Your task to perform on an android device: What's the news about the US? Image 0: 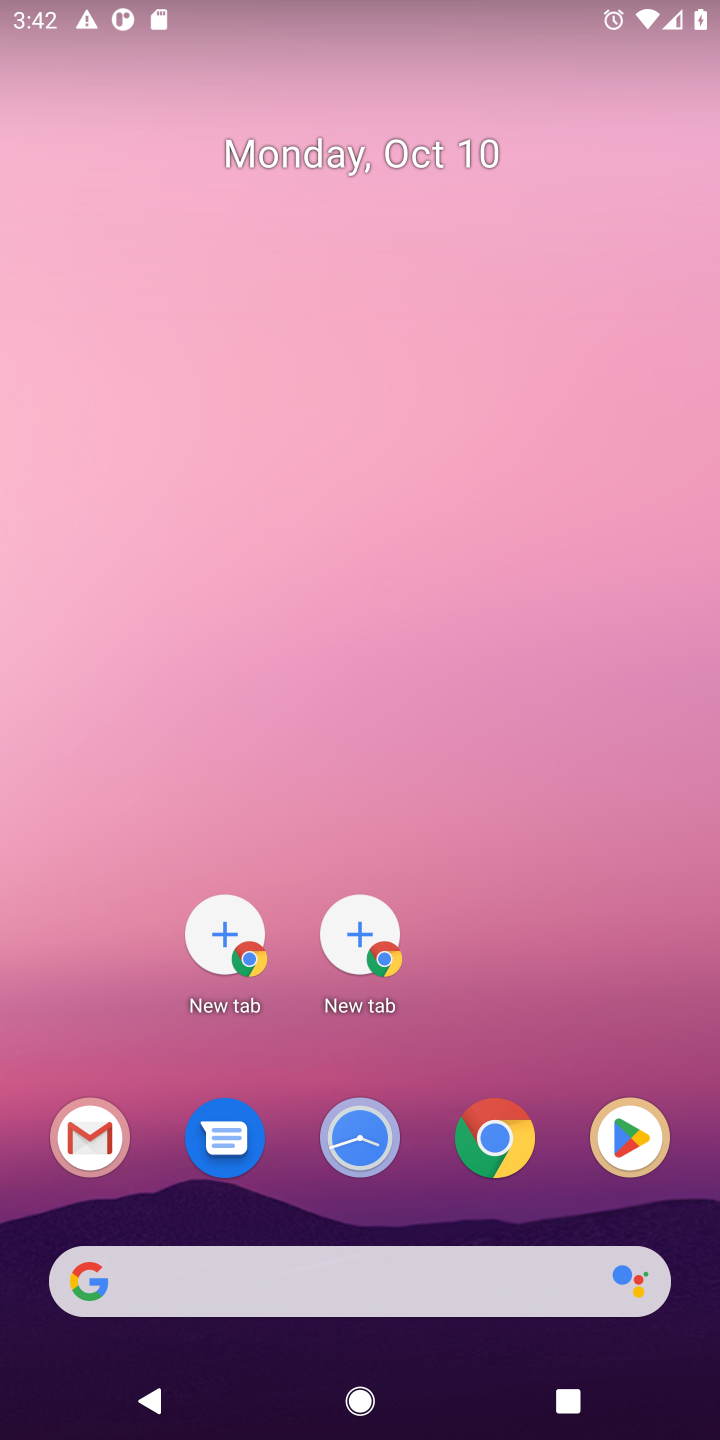
Step 0: click (516, 1133)
Your task to perform on an android device: What's the news about the US? Image 1: 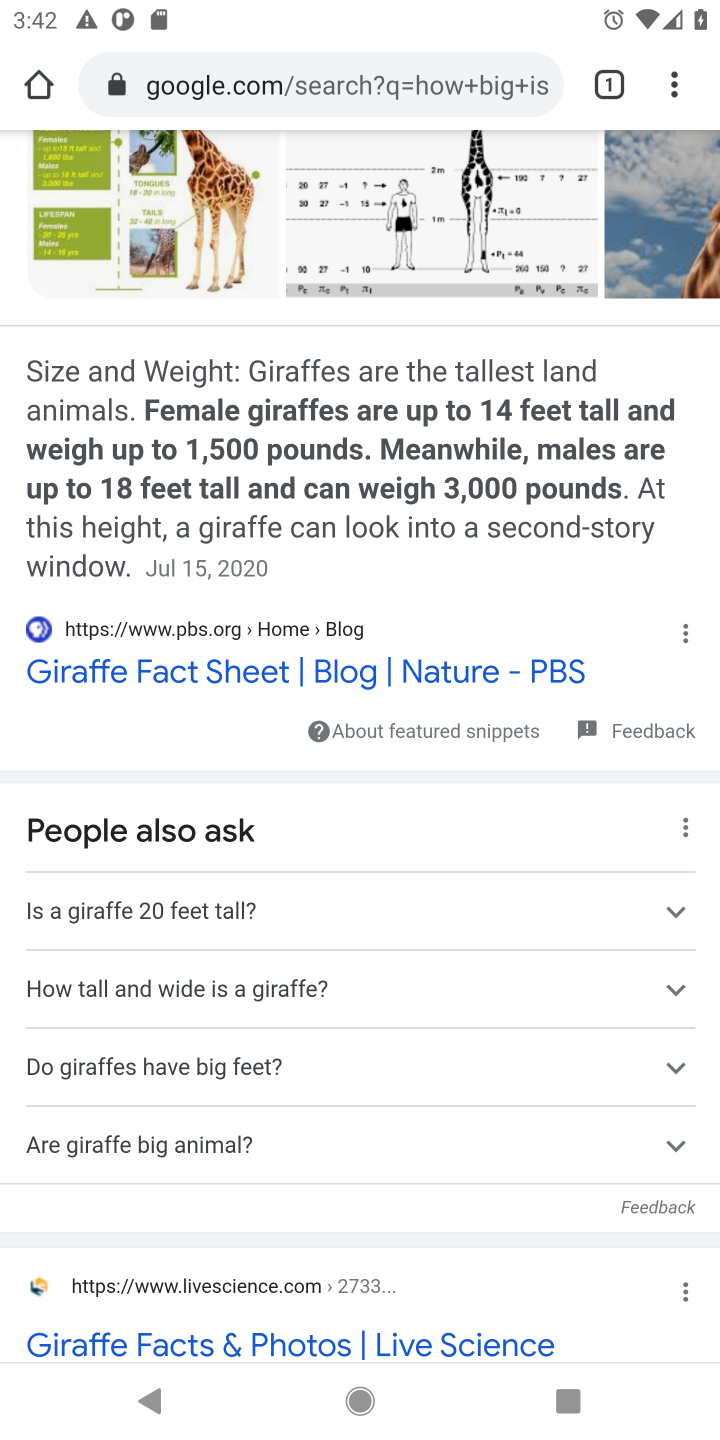
Step 1: click (354, 78)
Your task to perform on an android device: What's the news about the US? Image 2: 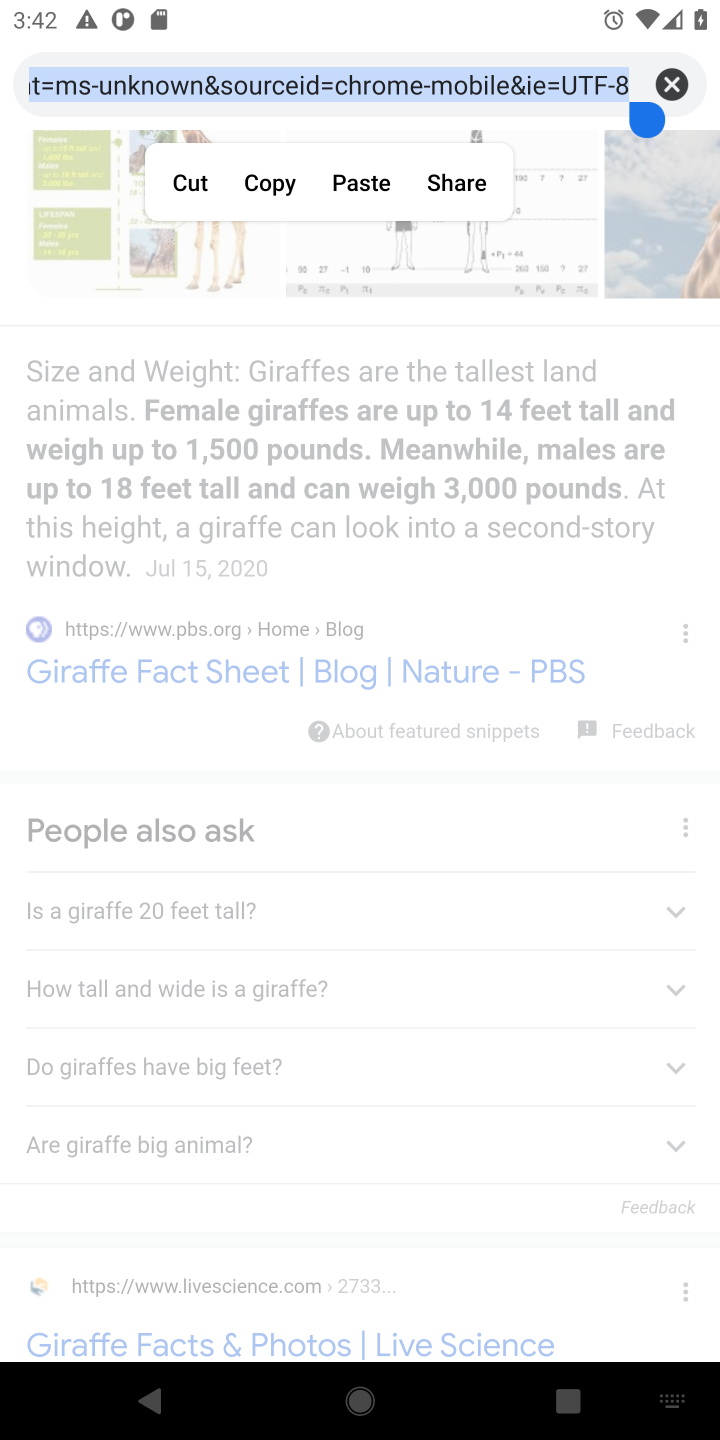
Step 2: type "news about the US"
Your task to perform on an android device: What's the news about the US? Image 3: 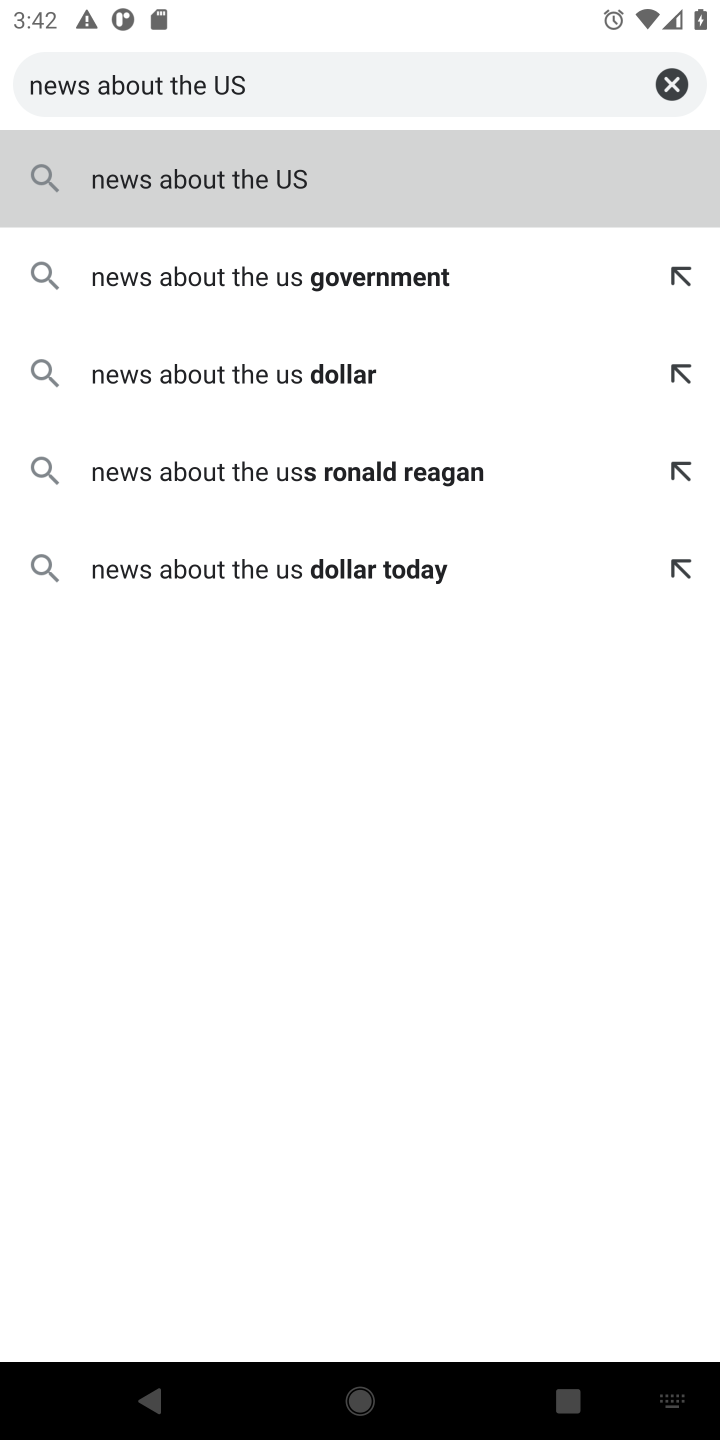
Step 3: press enter
Your task to perform on an android device: What's the news about the US? Image 4: 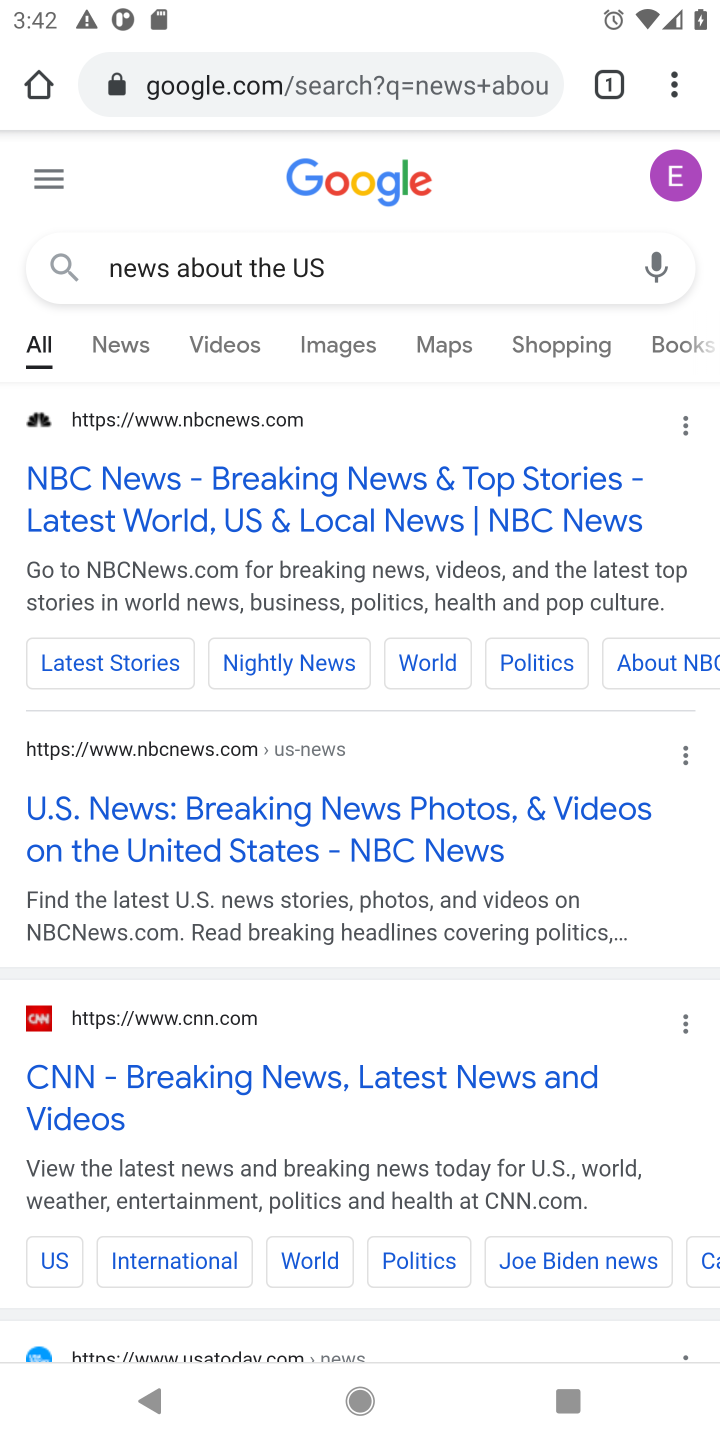
Step 4: click (120, 336)
Your task to perform on an android device: What's the news about the US? Image 5: 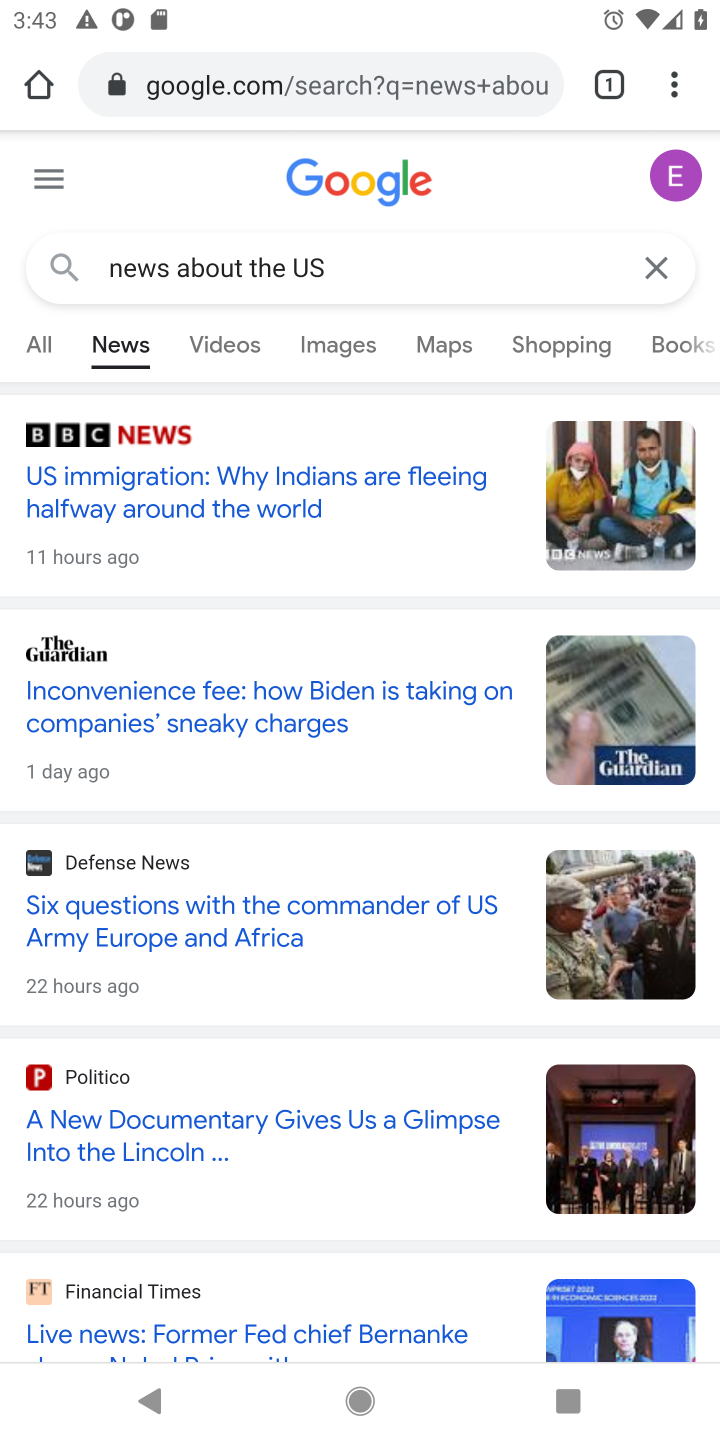
Step 5: task complete